Your task to perform on an android device: turn on priority inbox in the gmail app Image 0: 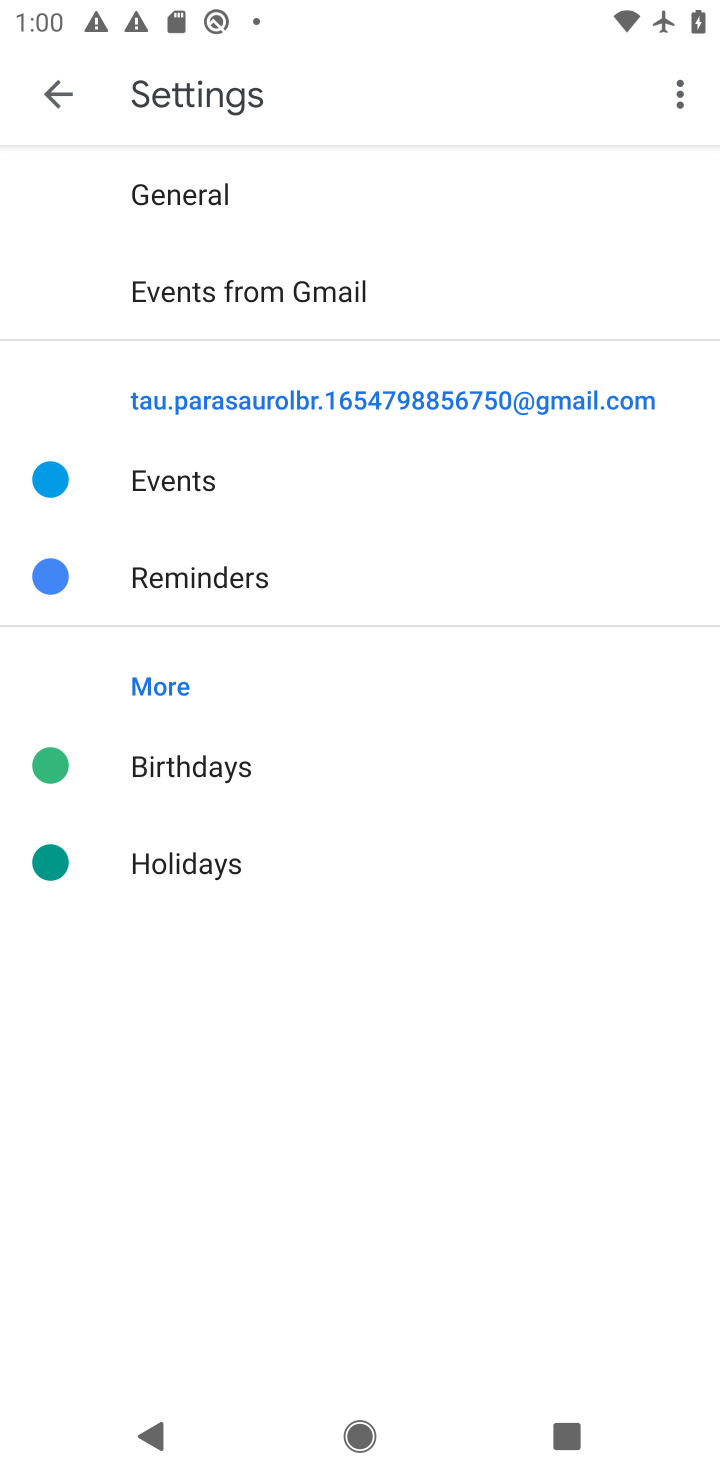
Step 0: task complete